Your task to perform on an android device: Open Youtube and go to the subscriptions tab Image 0: 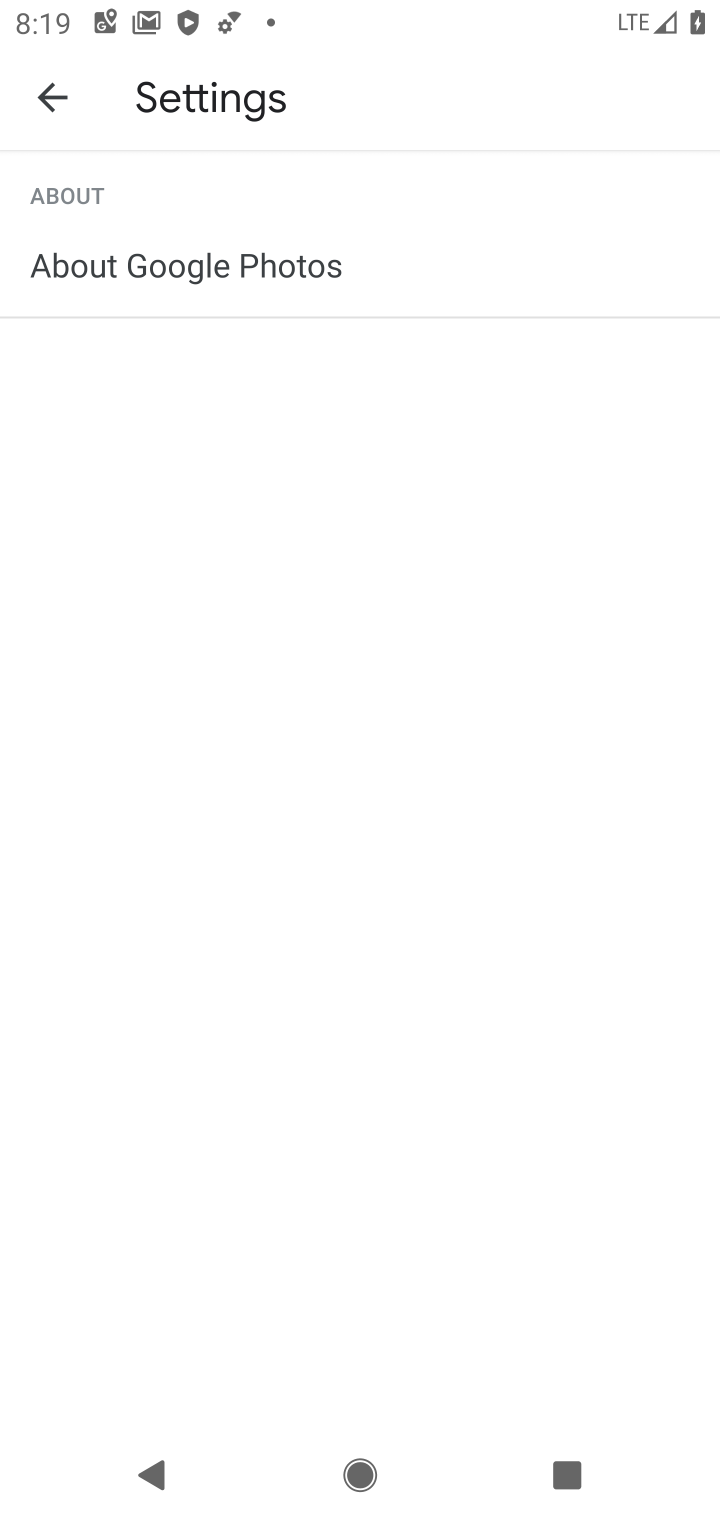
Step 0: press home button
Your task to perform on an android device: Open Youtube and go to the subscriptions tab Image 1: 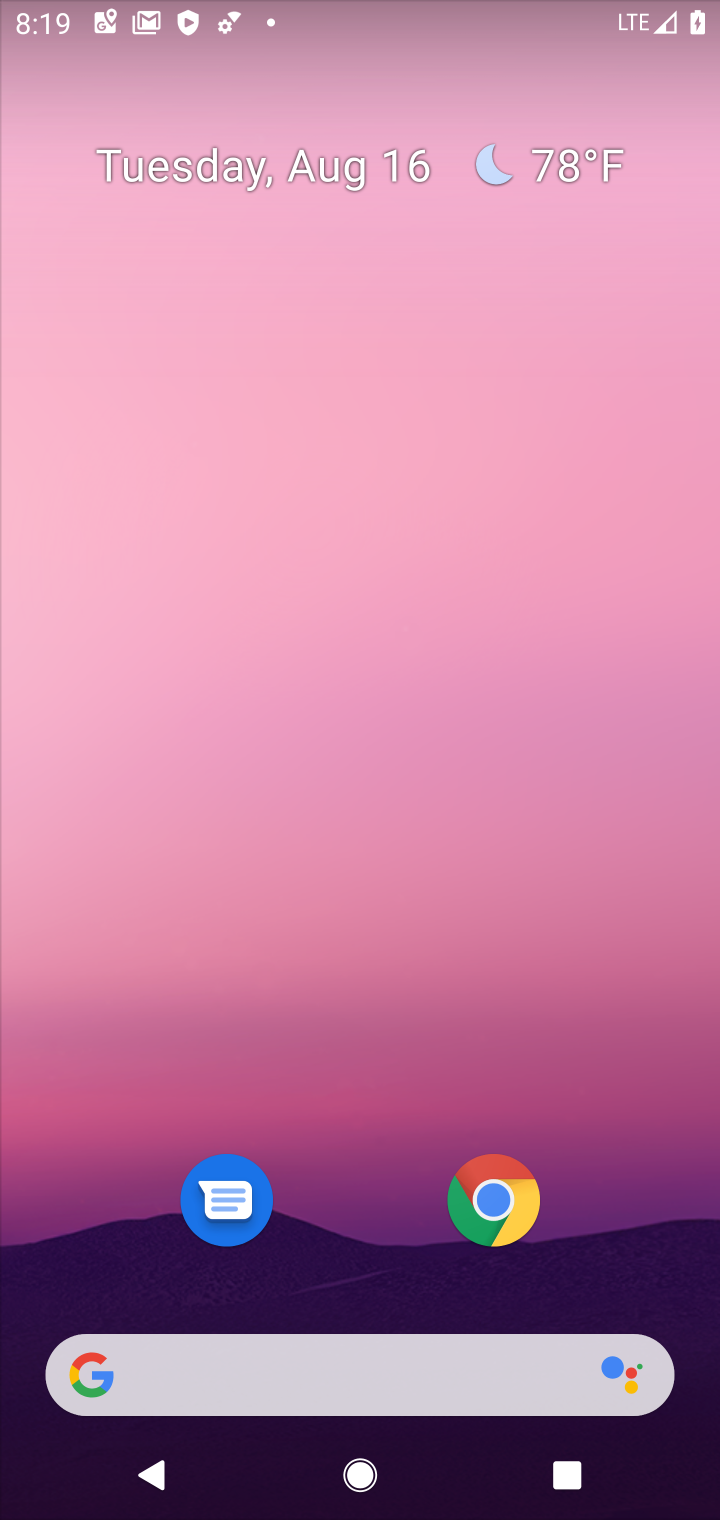
Step 1: drag from (682, 1193) to (622, 235)
Your task to perform on an android device: Open Youtube and go to the subscriptions tab Image 2: 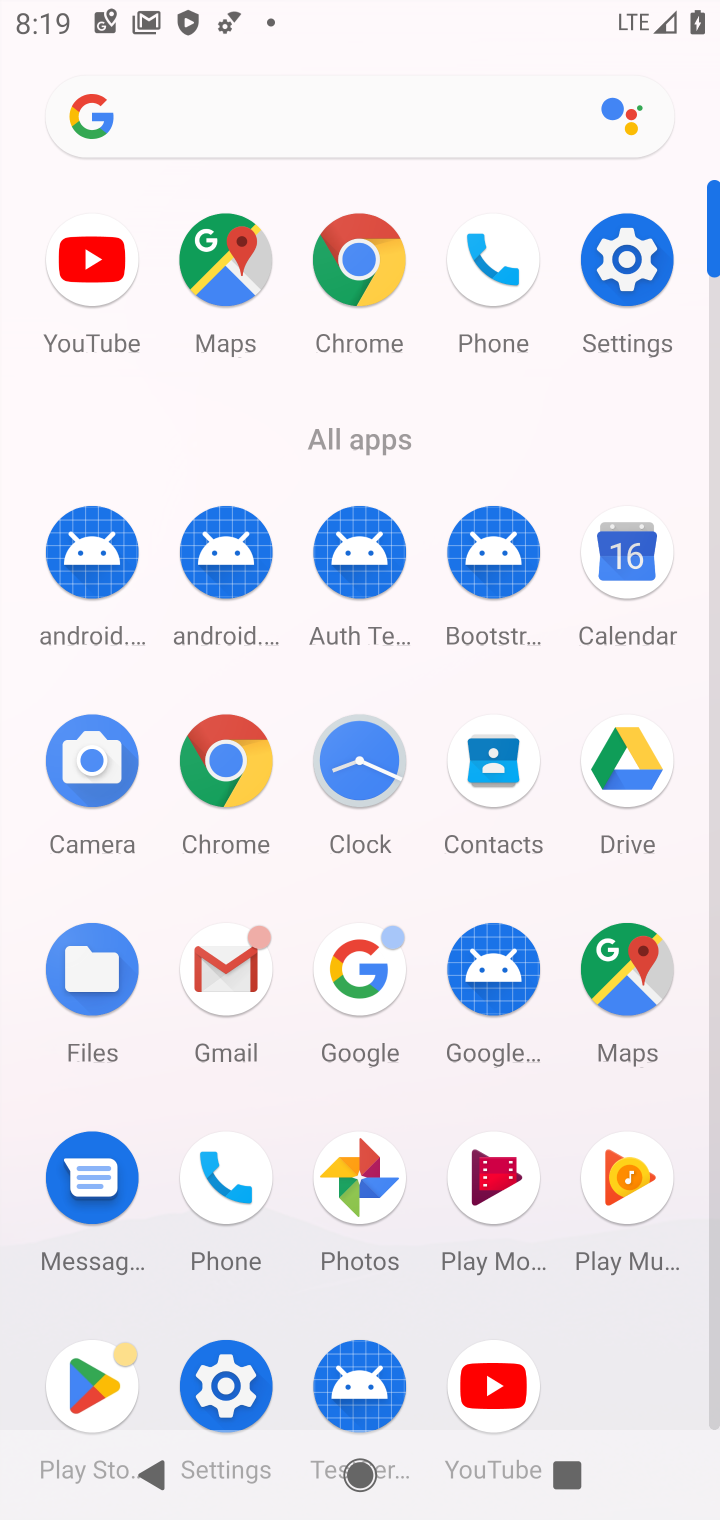
Step 2: click (496, 1387)
Your task to perform on an android device: Open Youtube and go to the subscriptions tab Image 3: 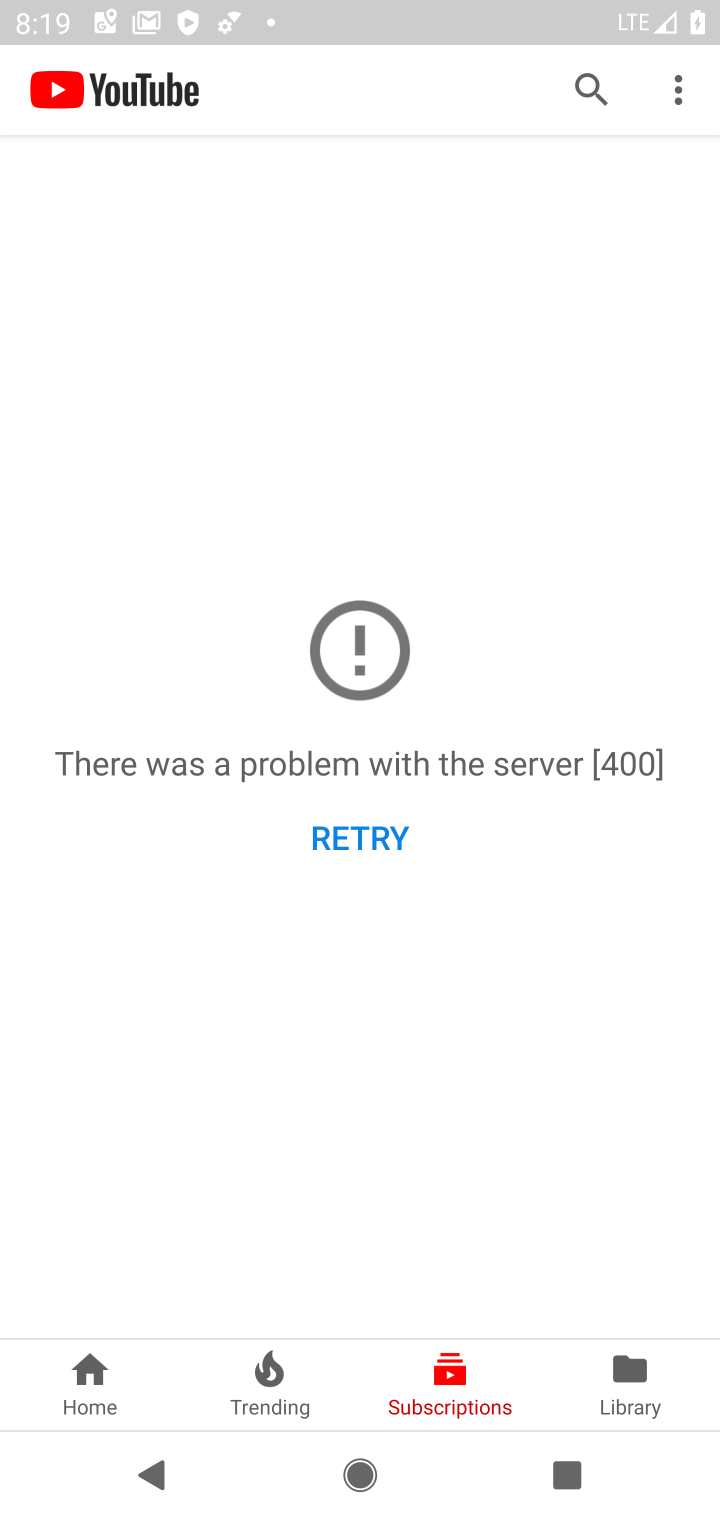
Step 3: click (337, 827)
Your task to perform on an android device: Open Youtube and go to the subscriptions tab Image 4: 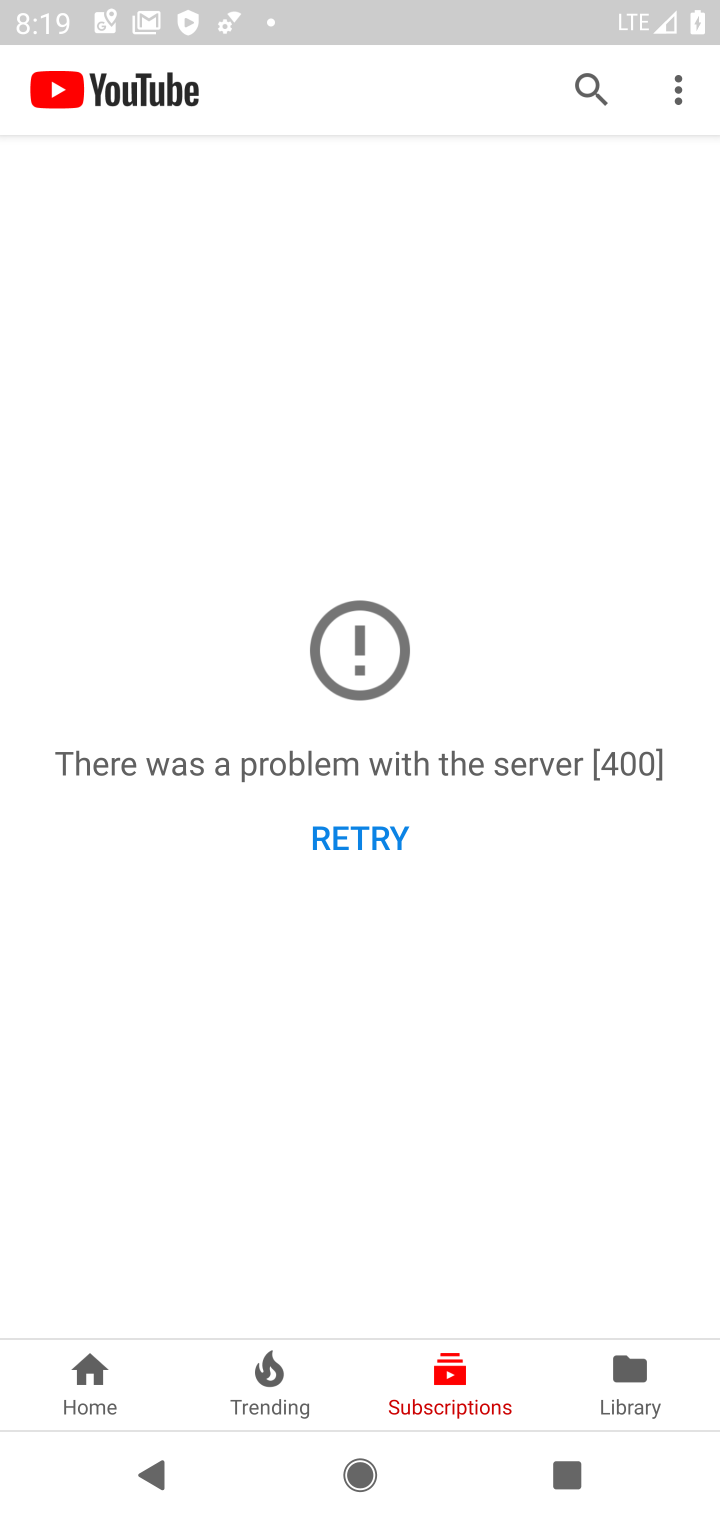
Step 4: click (365, 841)
Your task to perform on an android device: Open Youtube and go to the subscriptions tab Image 5: 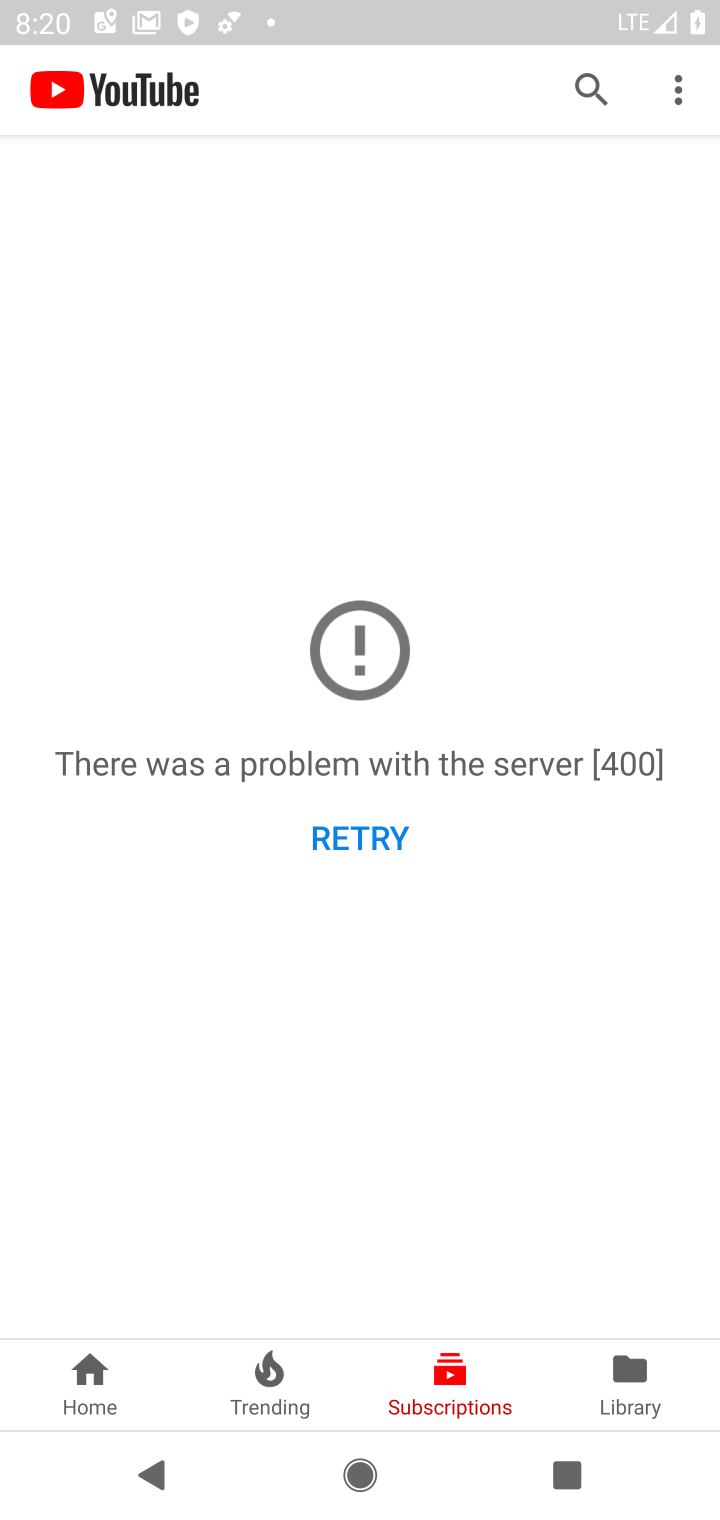
Step 5: click (365, 841)
Your task to perform on an android device: Open Youtube and go to the subscriptions tab Image 6: 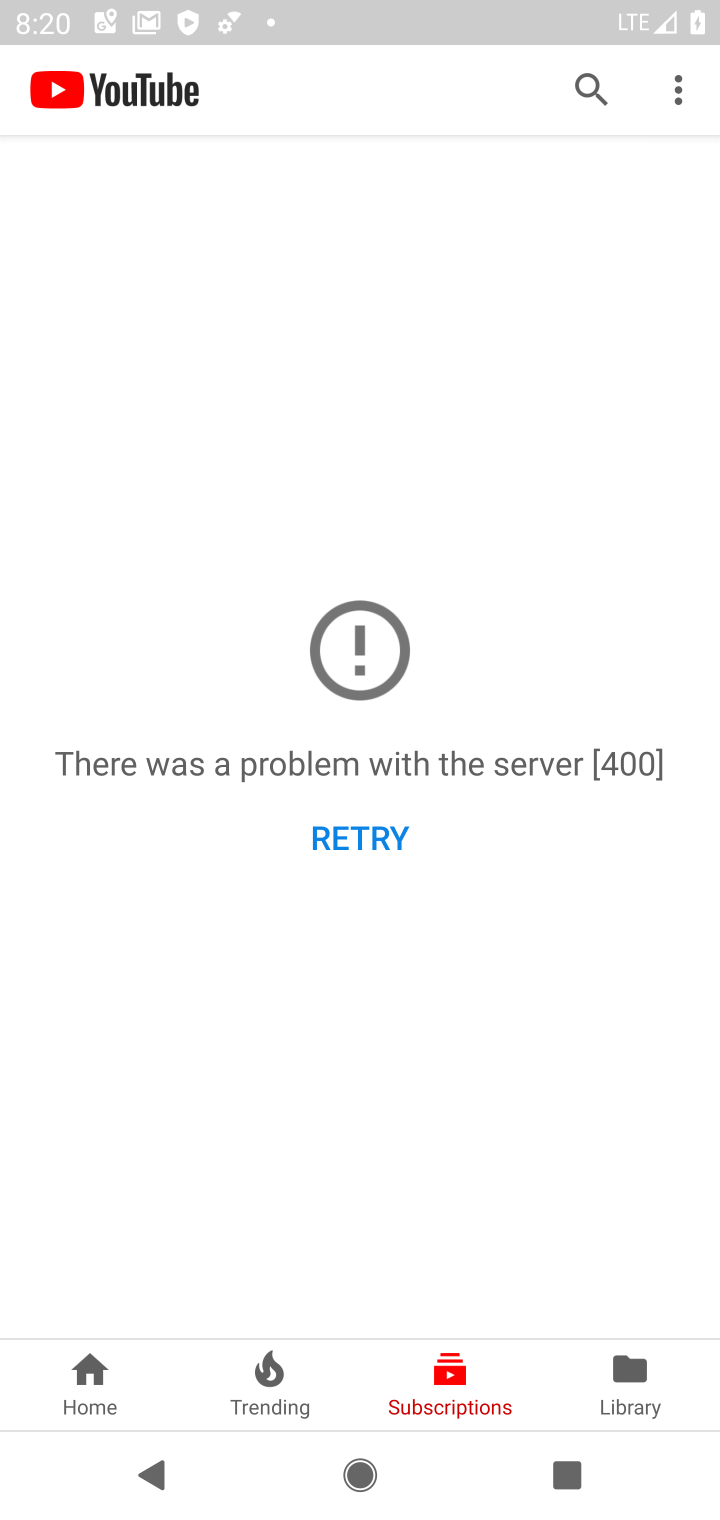
Step 6: task complete